Your task to perform on an android device: toggle notification dots Image 0: 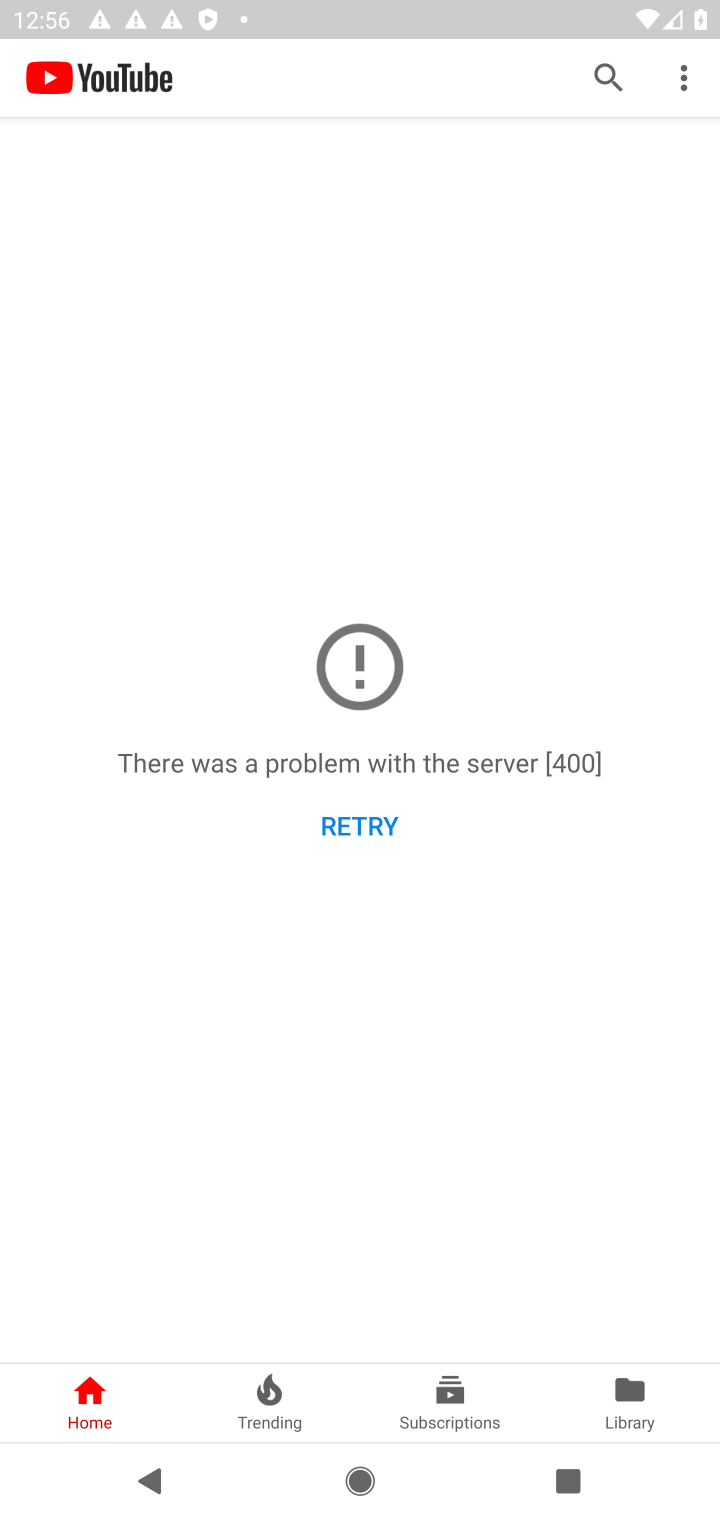
Step 0: press home button
Your task to perform on an android device: toggle notification dots Image 1: 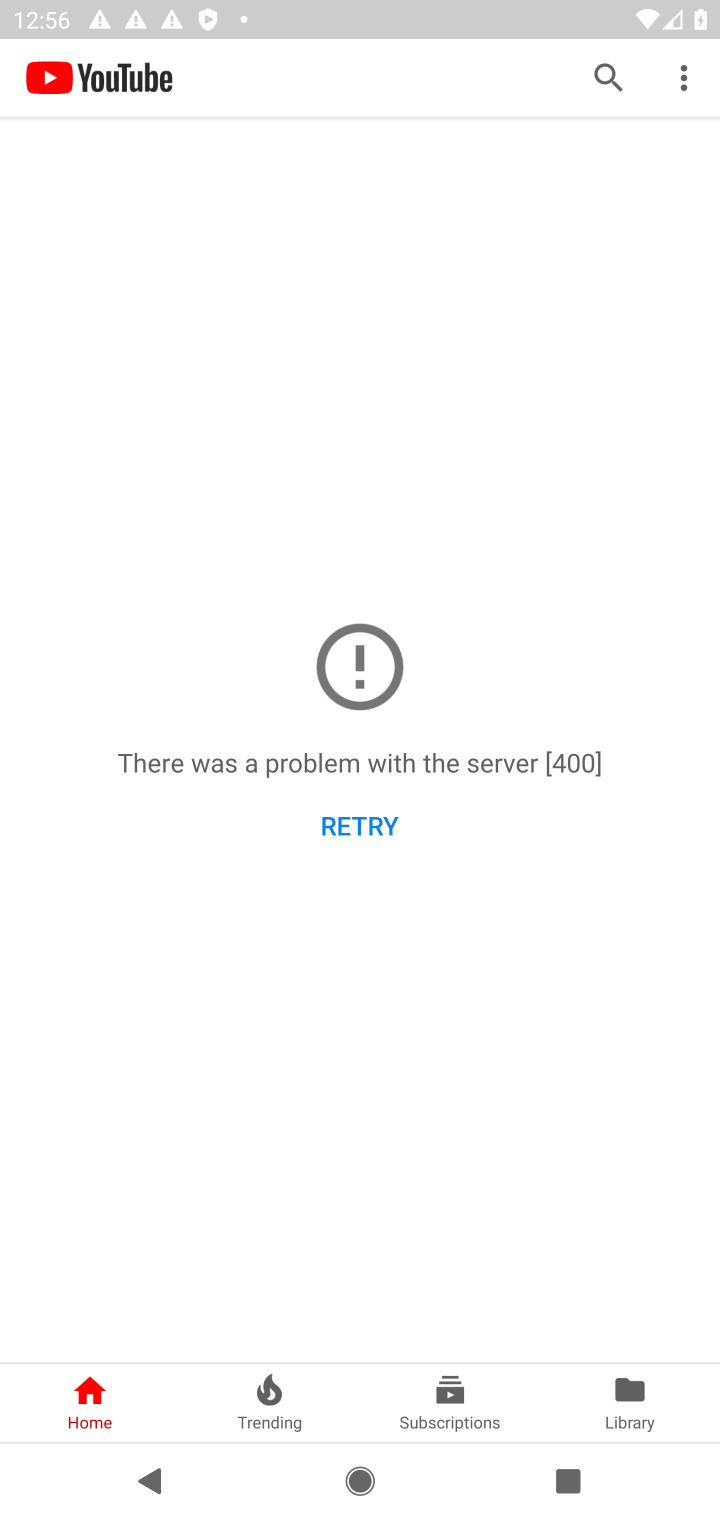
Step 1: press home button
Your task to perform on an android device: toggle notification dots Image 2: 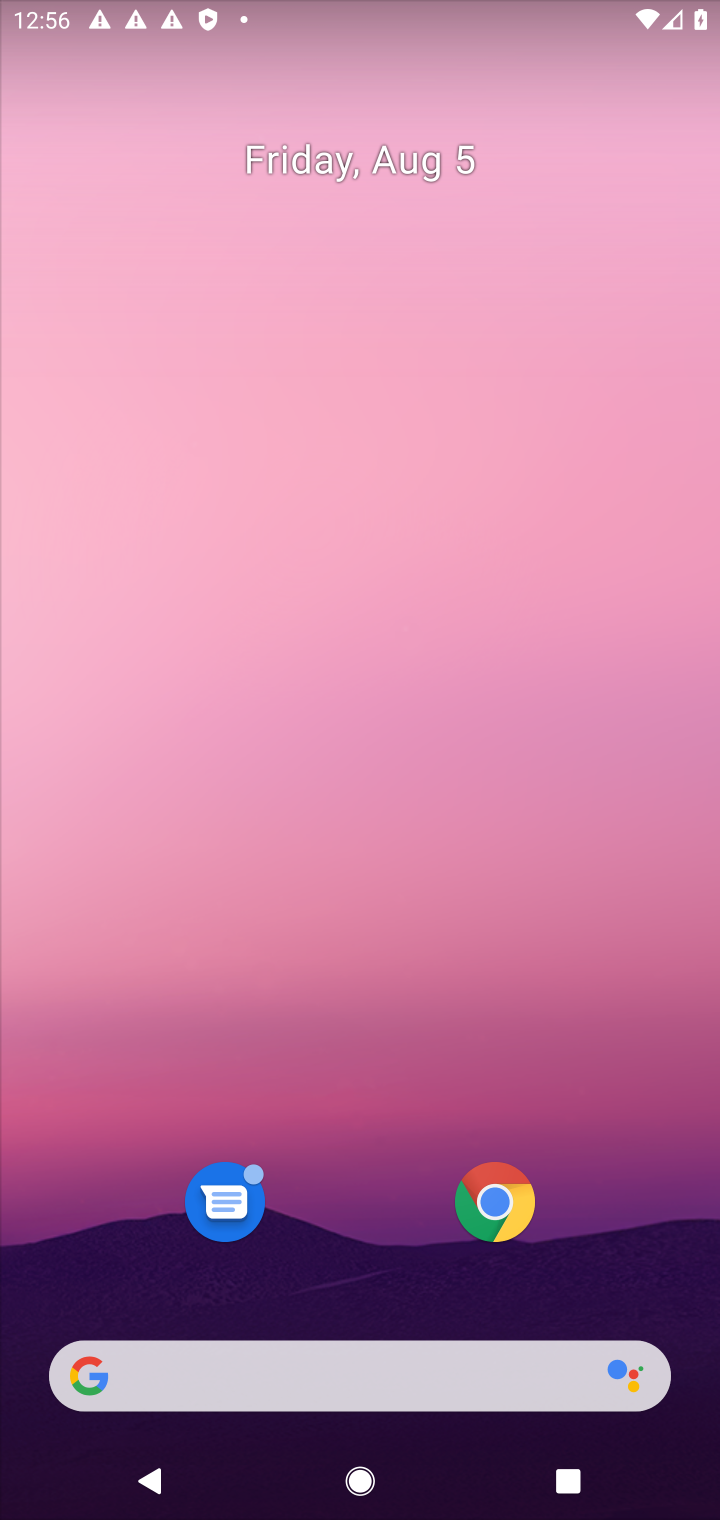
Step 2: drag from (540, 725) to (494, 229)
Your task to perform on an android device: toggle notification dots Image 3: 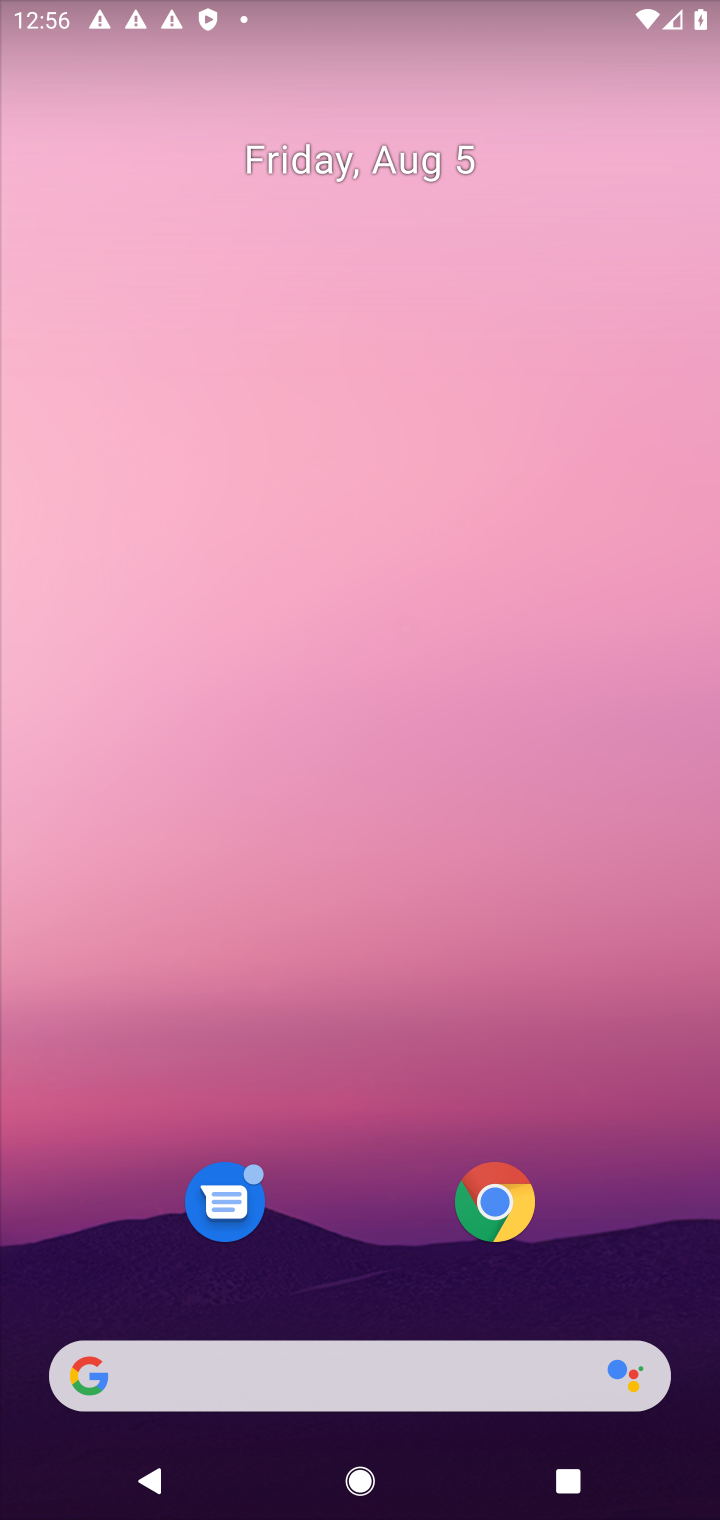
Step 3: drag from (346, 1015) to (433, 233)
Your task to perform on an android device: toggle notification dots Image 4: 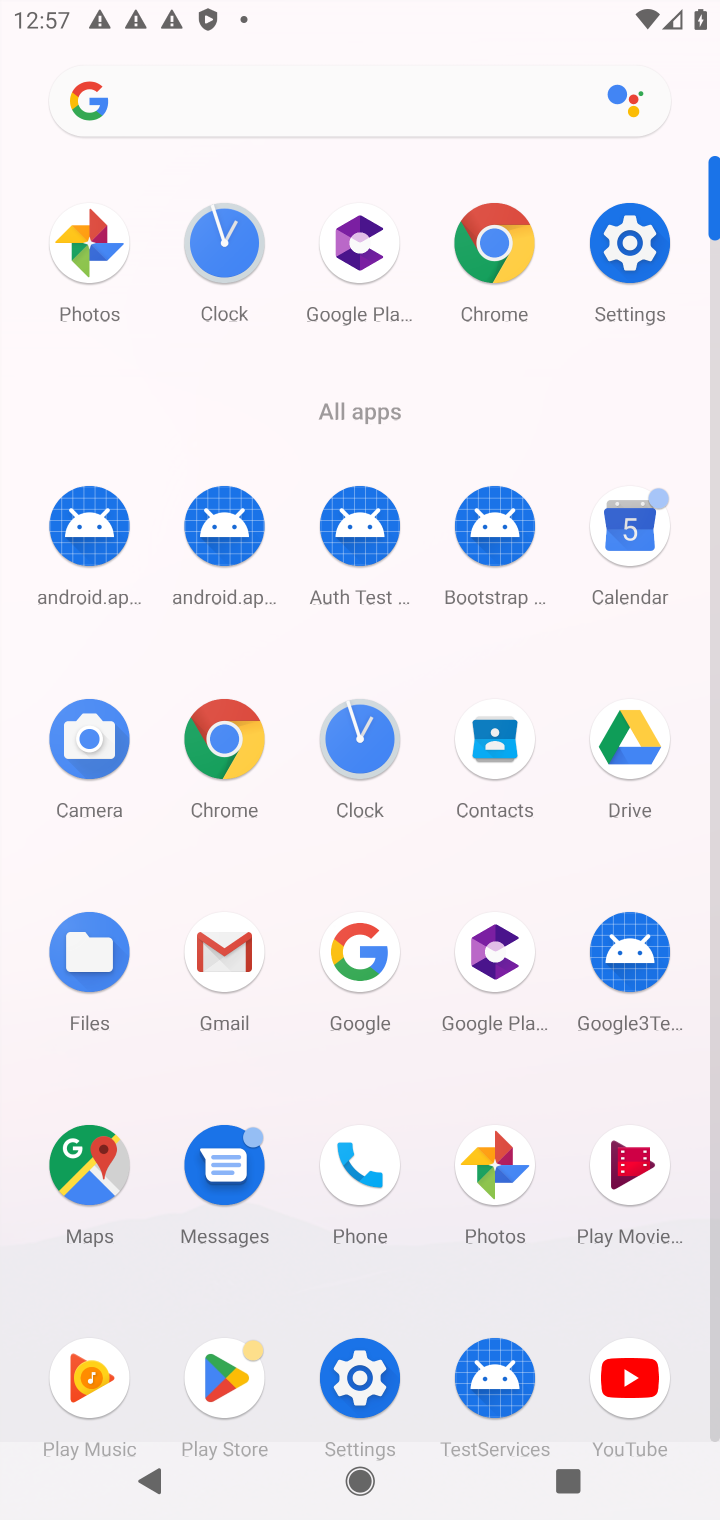
Step 4: click (366, 1369)
Your task to perform on an android device: toggle notification dots Image 5: 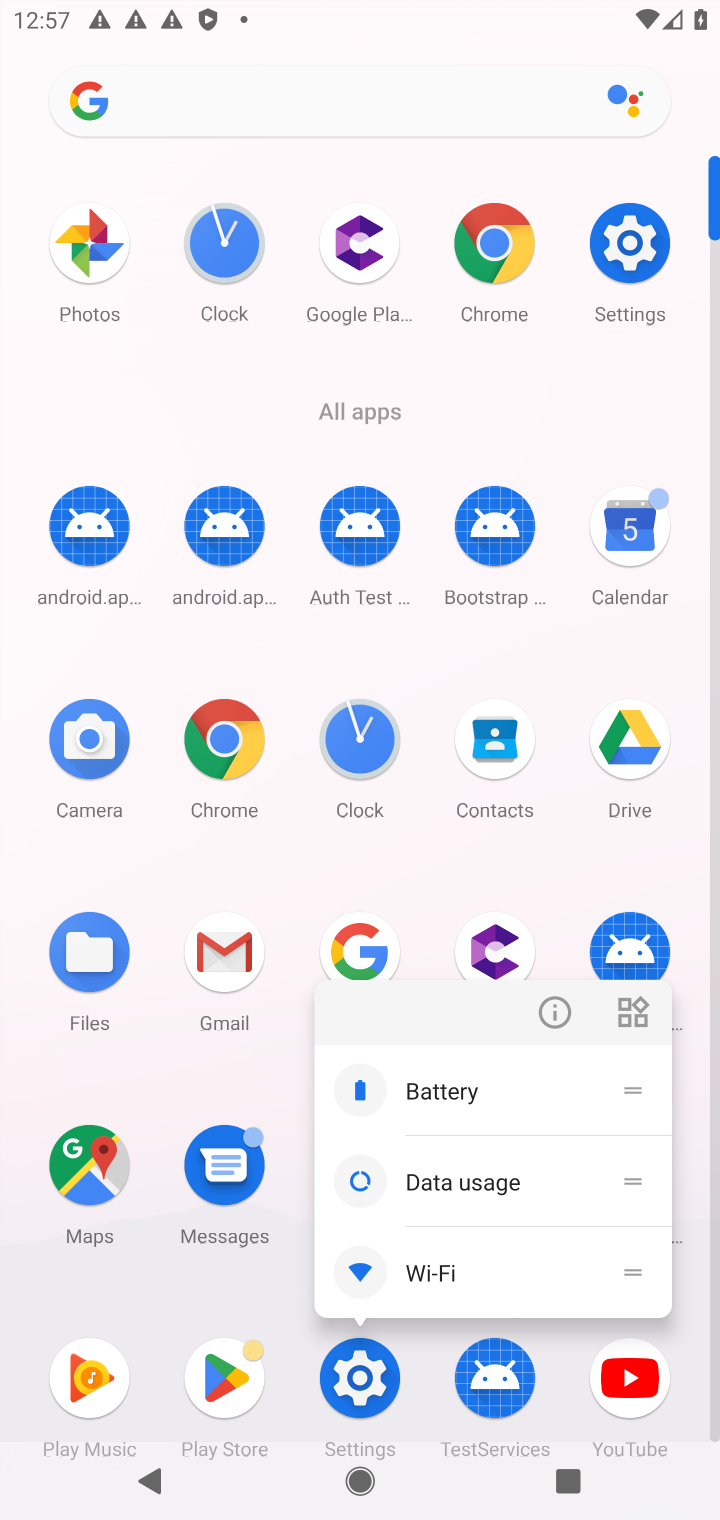
Step 5: click (366, 1368)
Your task to perform on an android device: toggle notification dots Image 6: 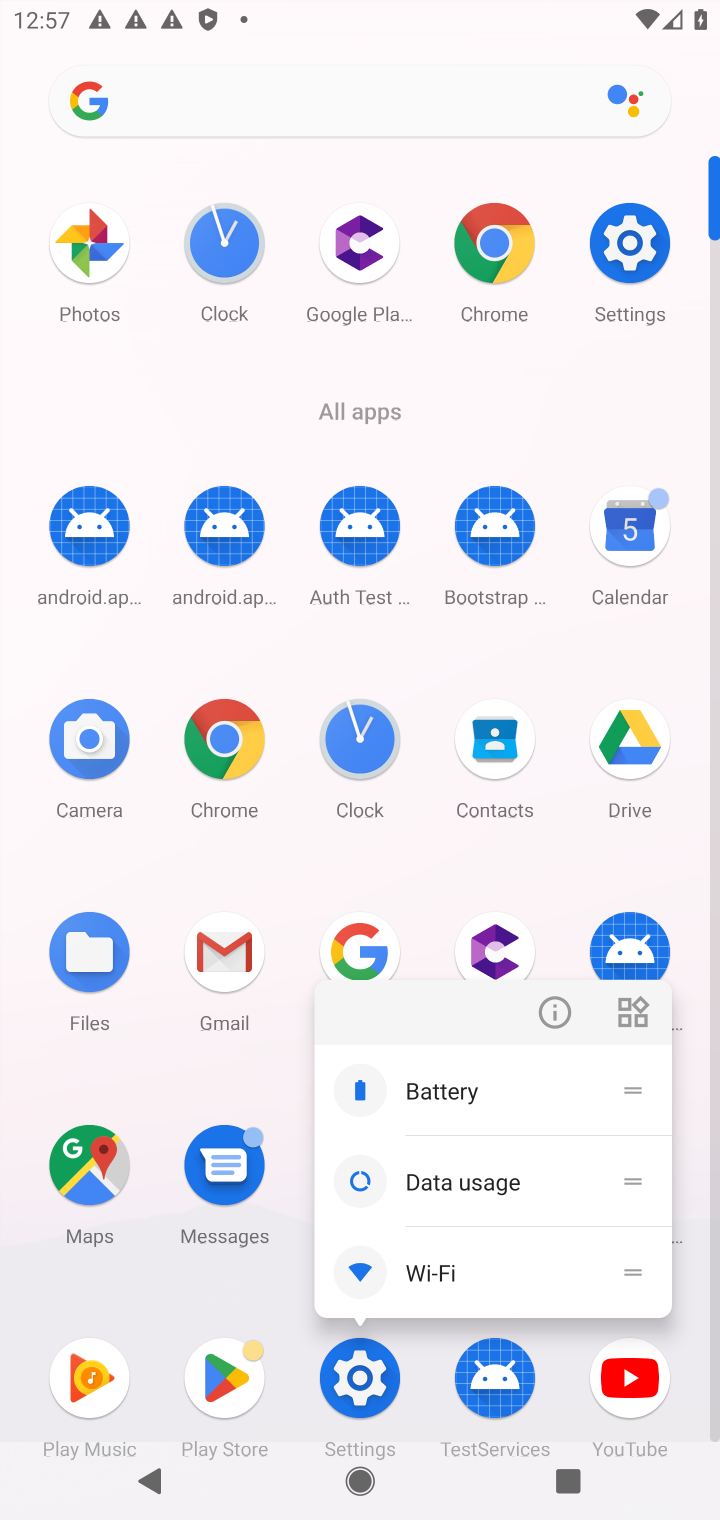
Step 6: click (351, 1373)
Your task to perform on an android device: toggle notification dots Image 7: 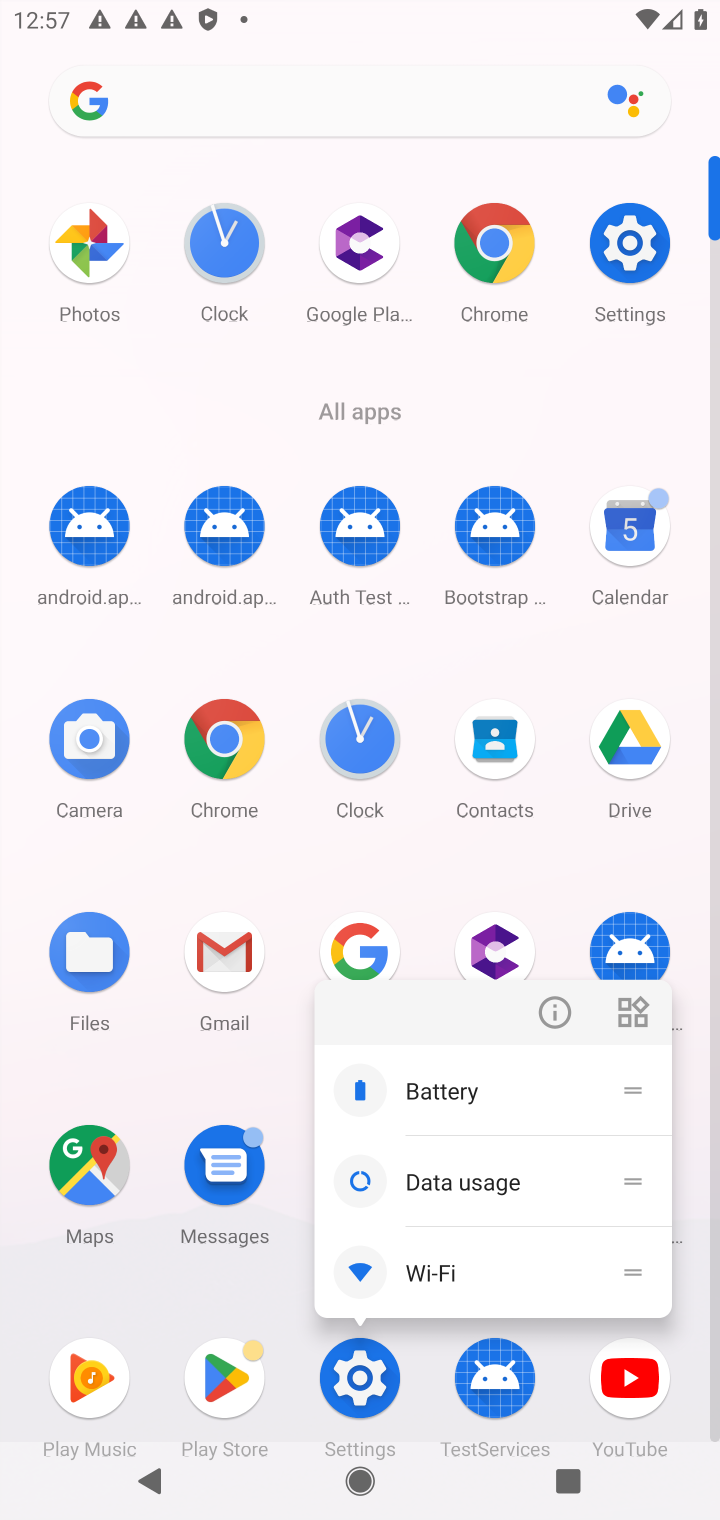
Step 7: click (272, 1292)
Your task to perform on an android device: toggle notification dots Image 8: 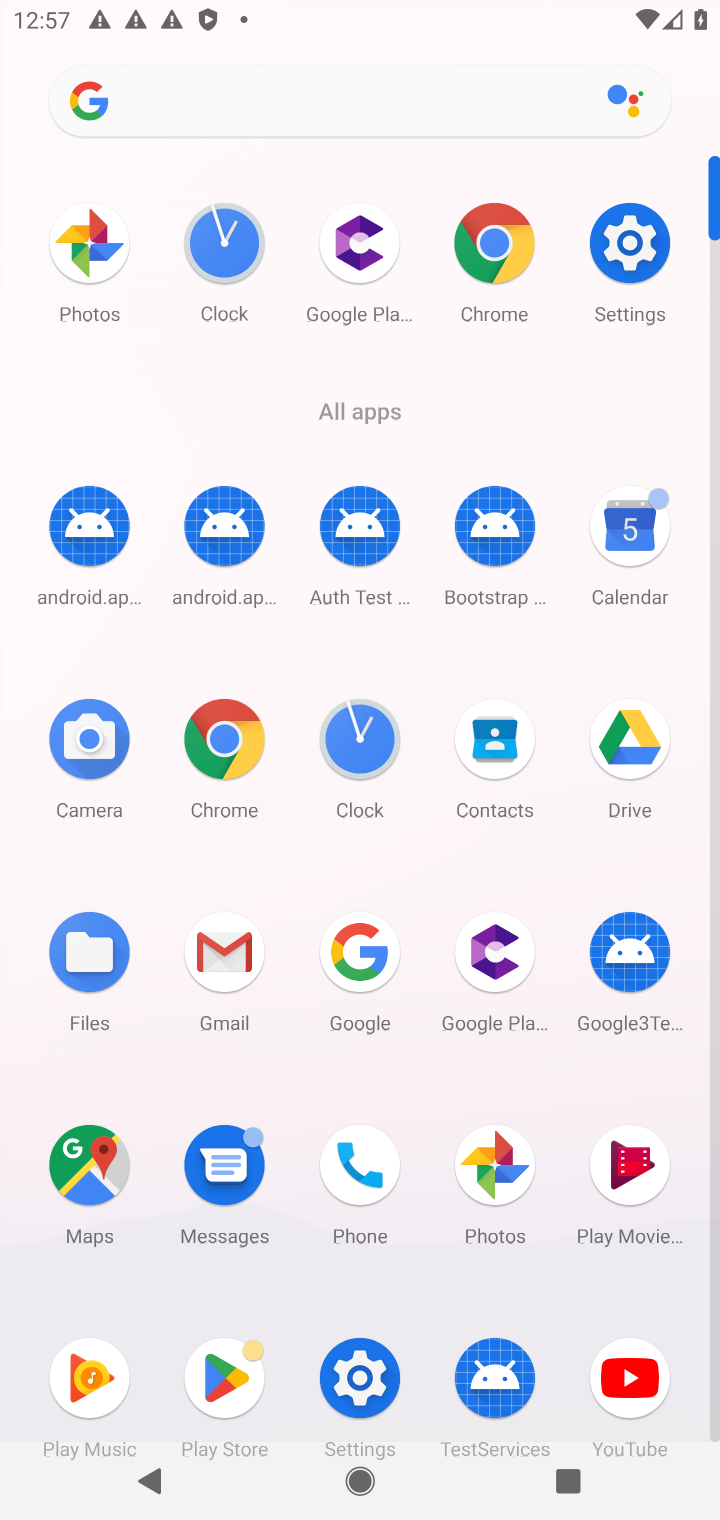
Step 8: drag from (427, 1288) to (431, 646)
Your task to perform on an android device: toggle notification dots Image 9: 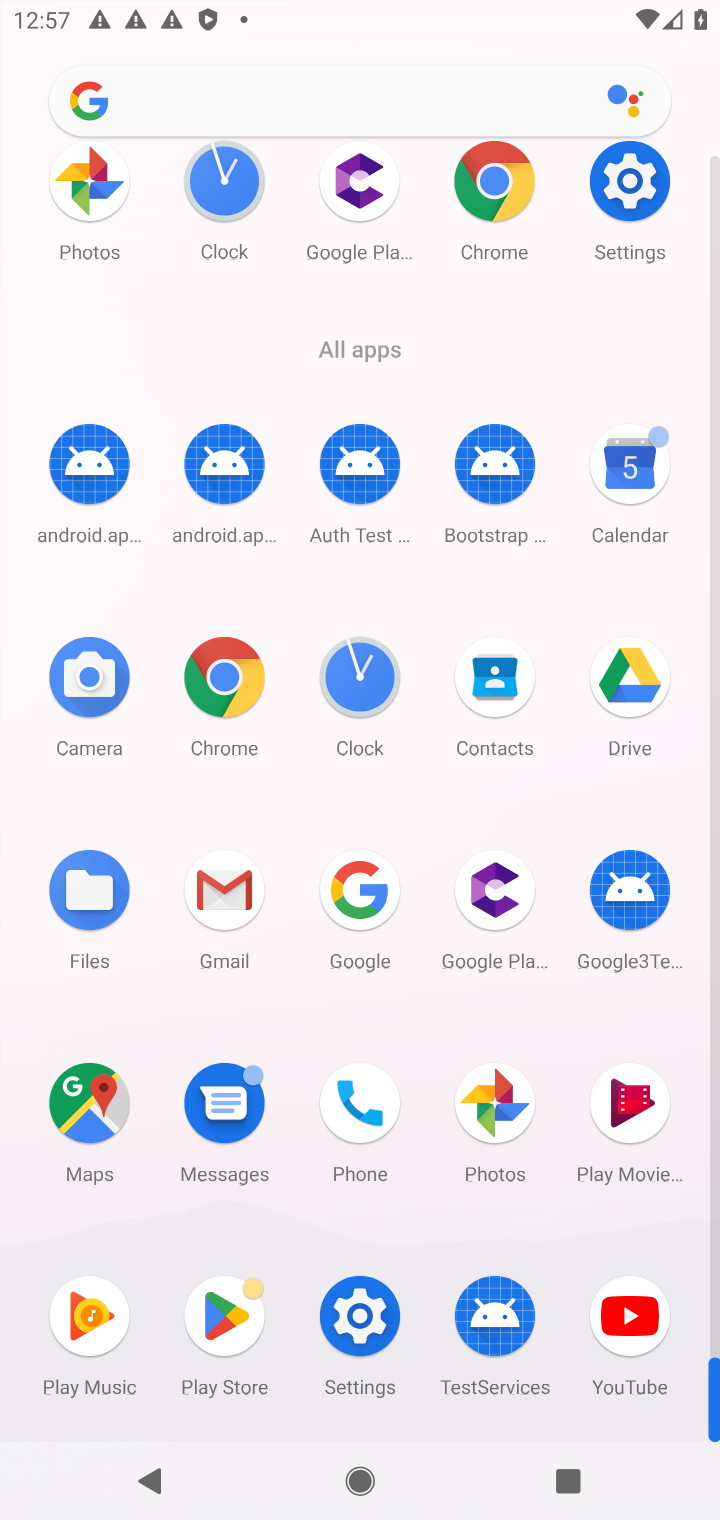
Step 9: click (360, 1310)
Your task to perform on an android device: toggle notification dots Image 10: 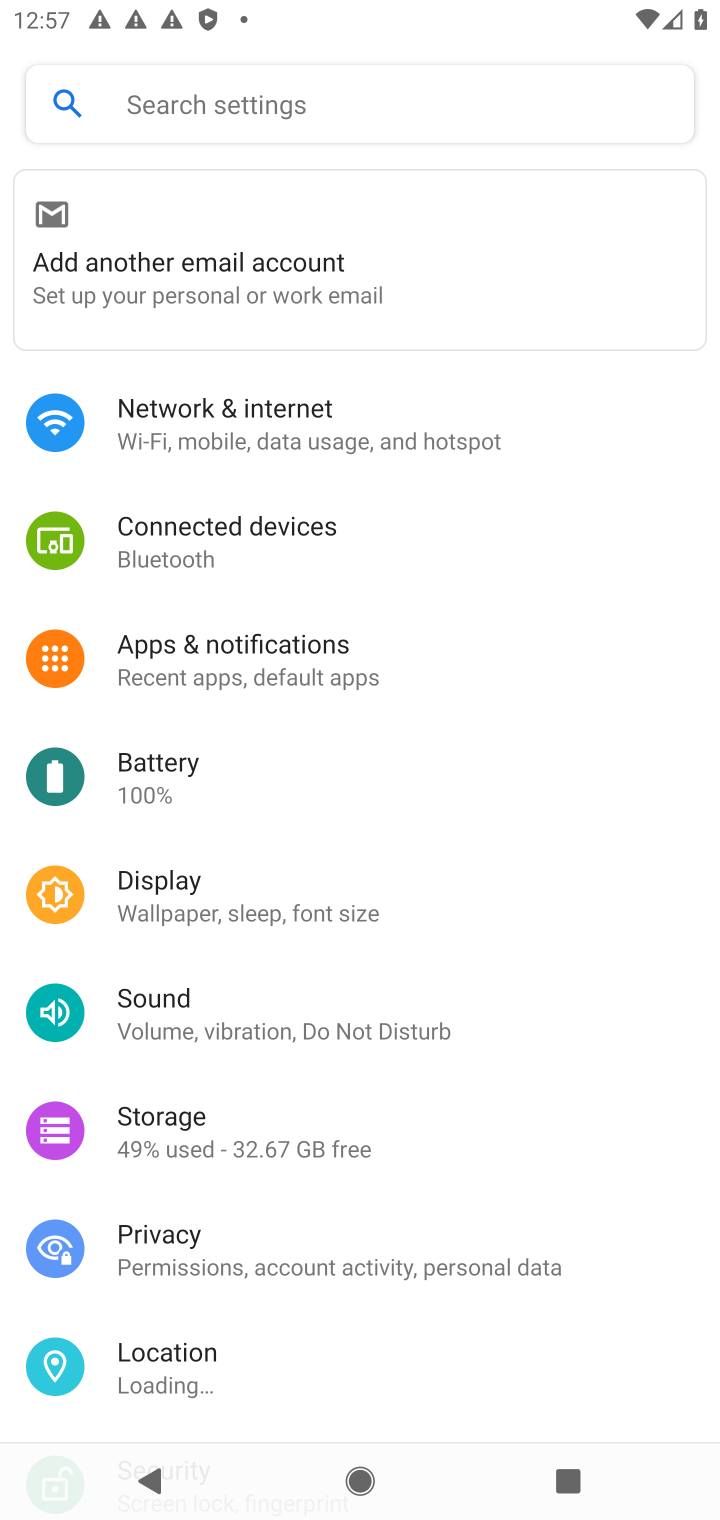
Step 10: click (233, 636)
Your task to perform on an android device: toggle notification dots Image 11: 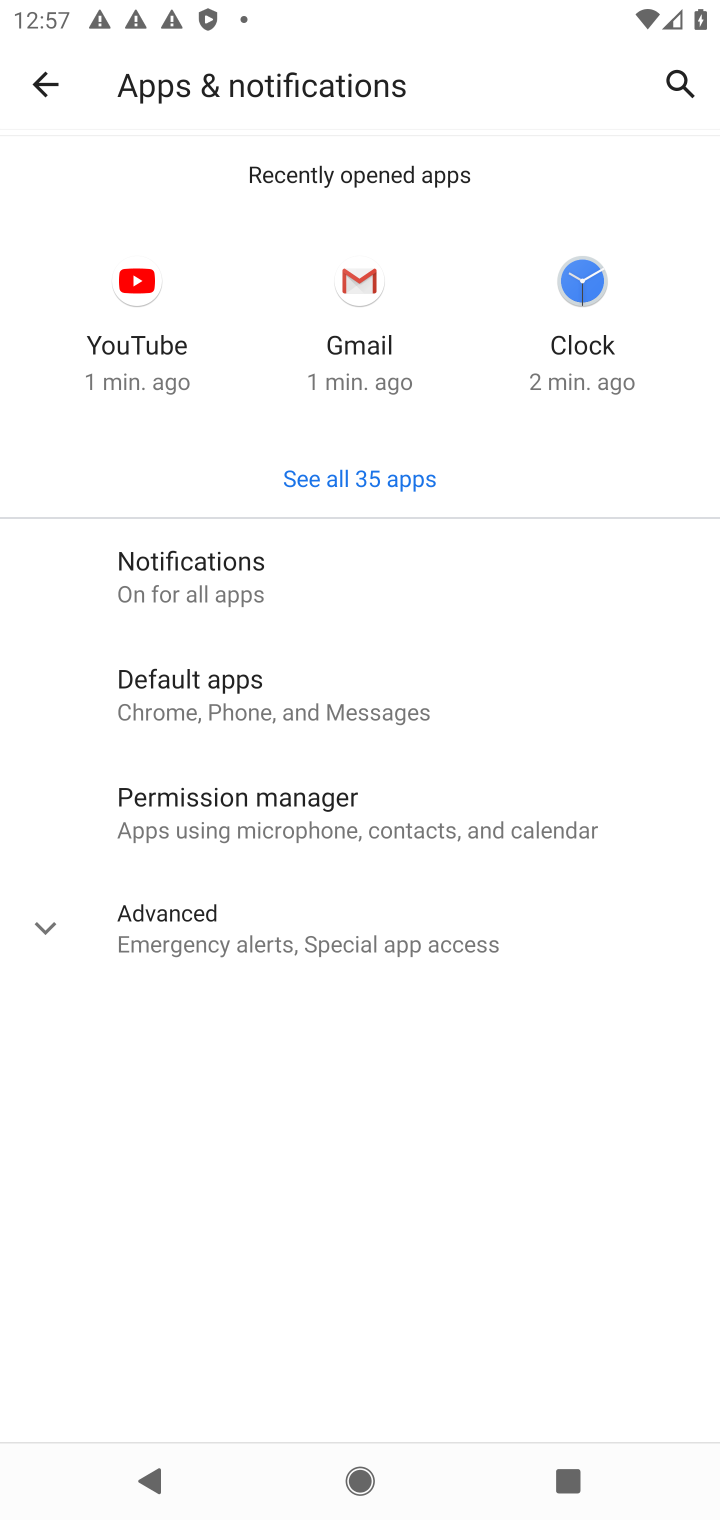
Step 11: click (212, 572)
Your task to perform on an android device: toggle notification dots Image 12: 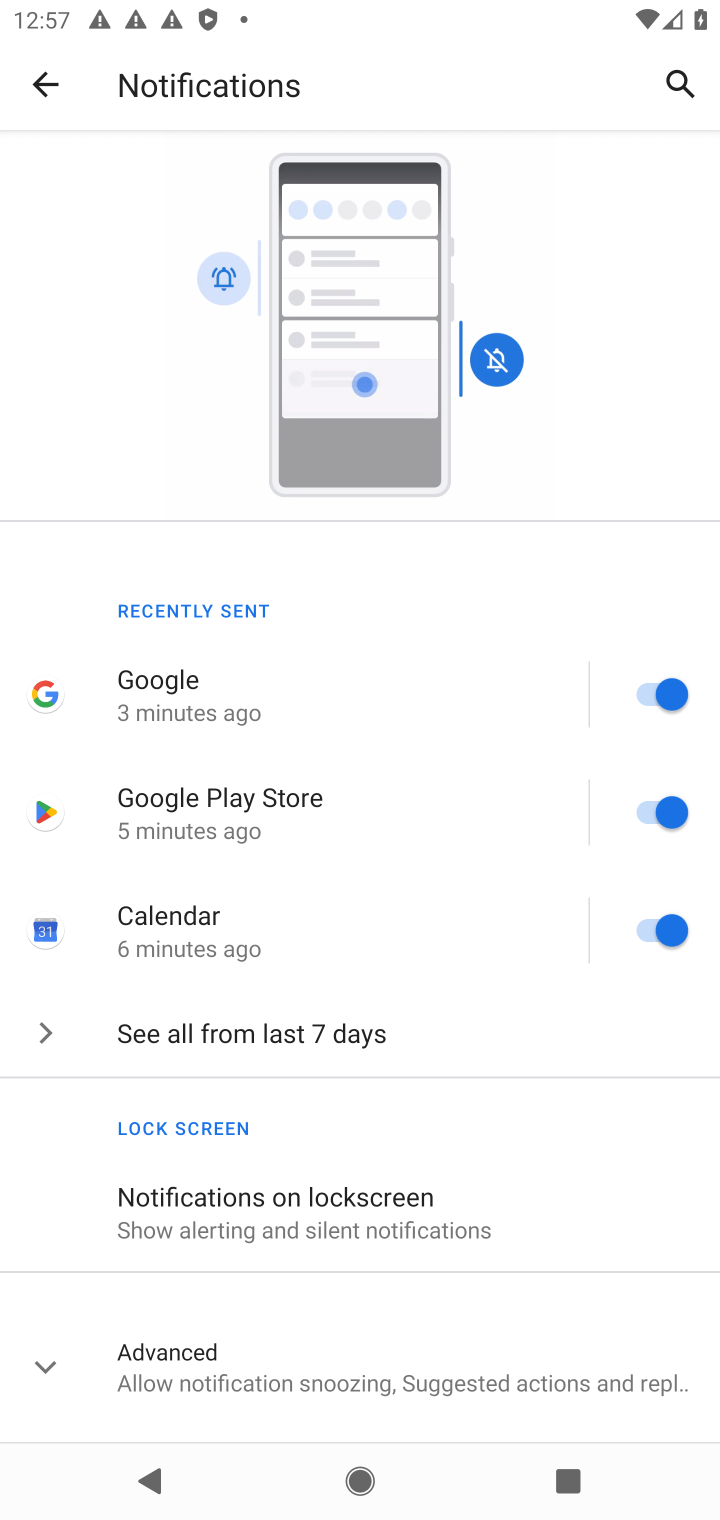
Step 12: drag from (463, 1255) to (477, 443)
Your task to perform on an android device: toggle notification dots Image 13: 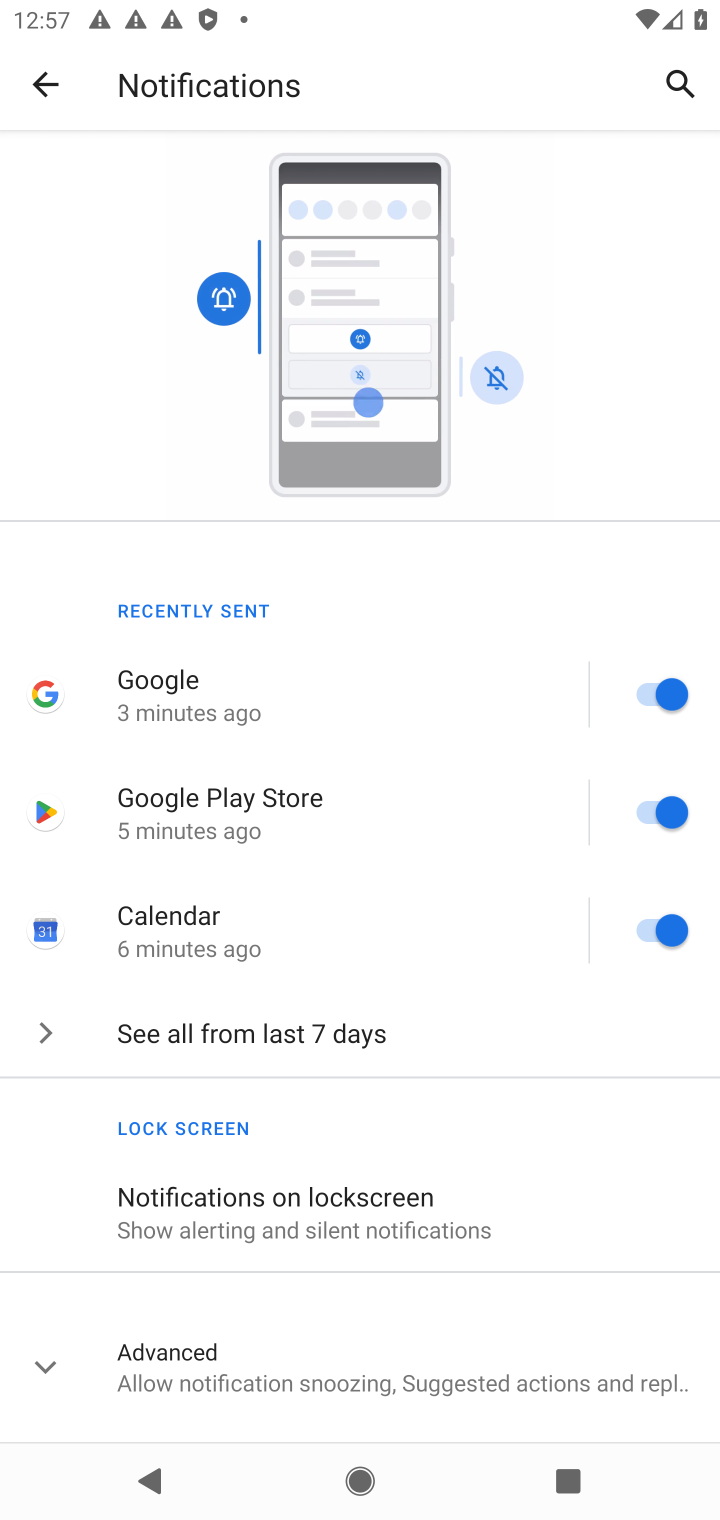
Step 13: click (321, 1372)
Your task to perform on an android device: toggle notification dots Image 14: 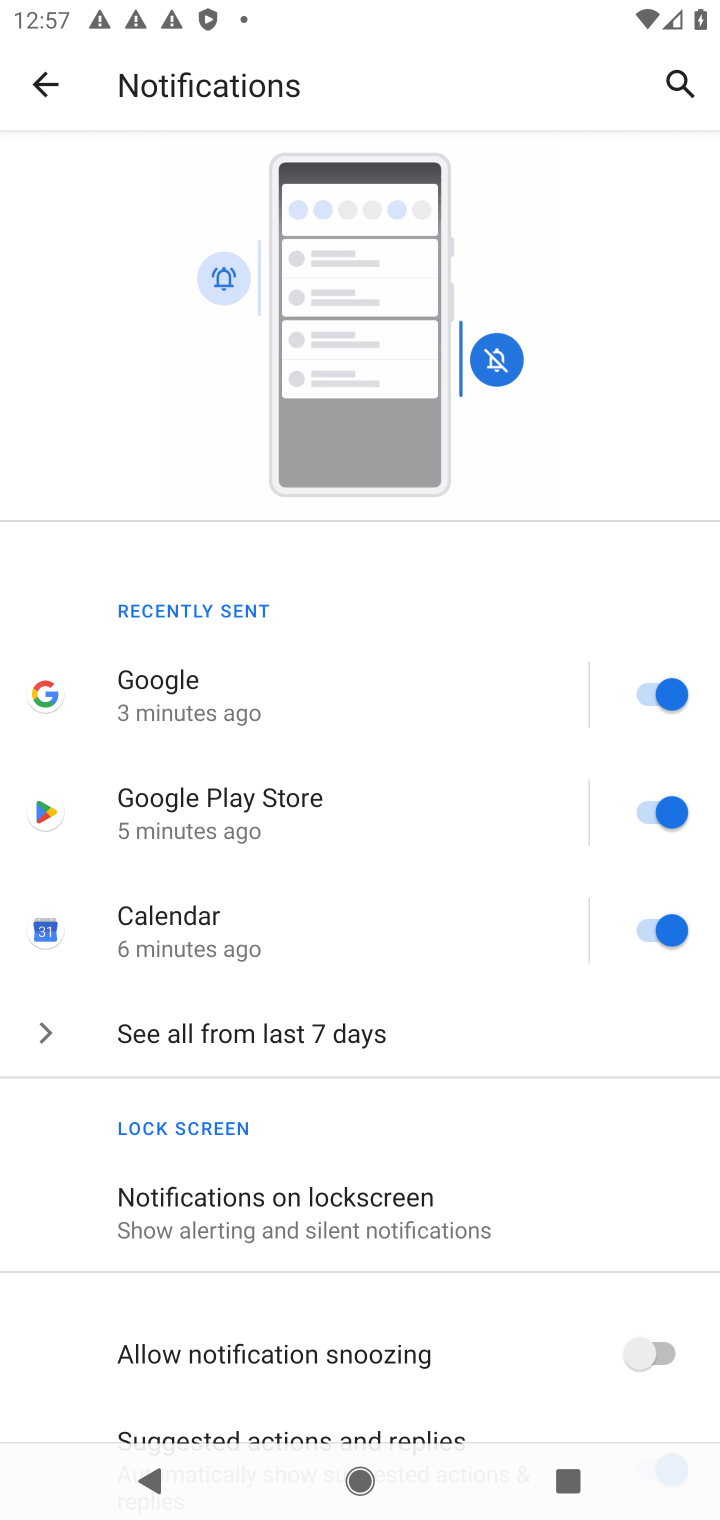
Step 14: drag from (637, 1115) to (623, 370)
Your task to perform on an android device: toggle notification dots Image 15: 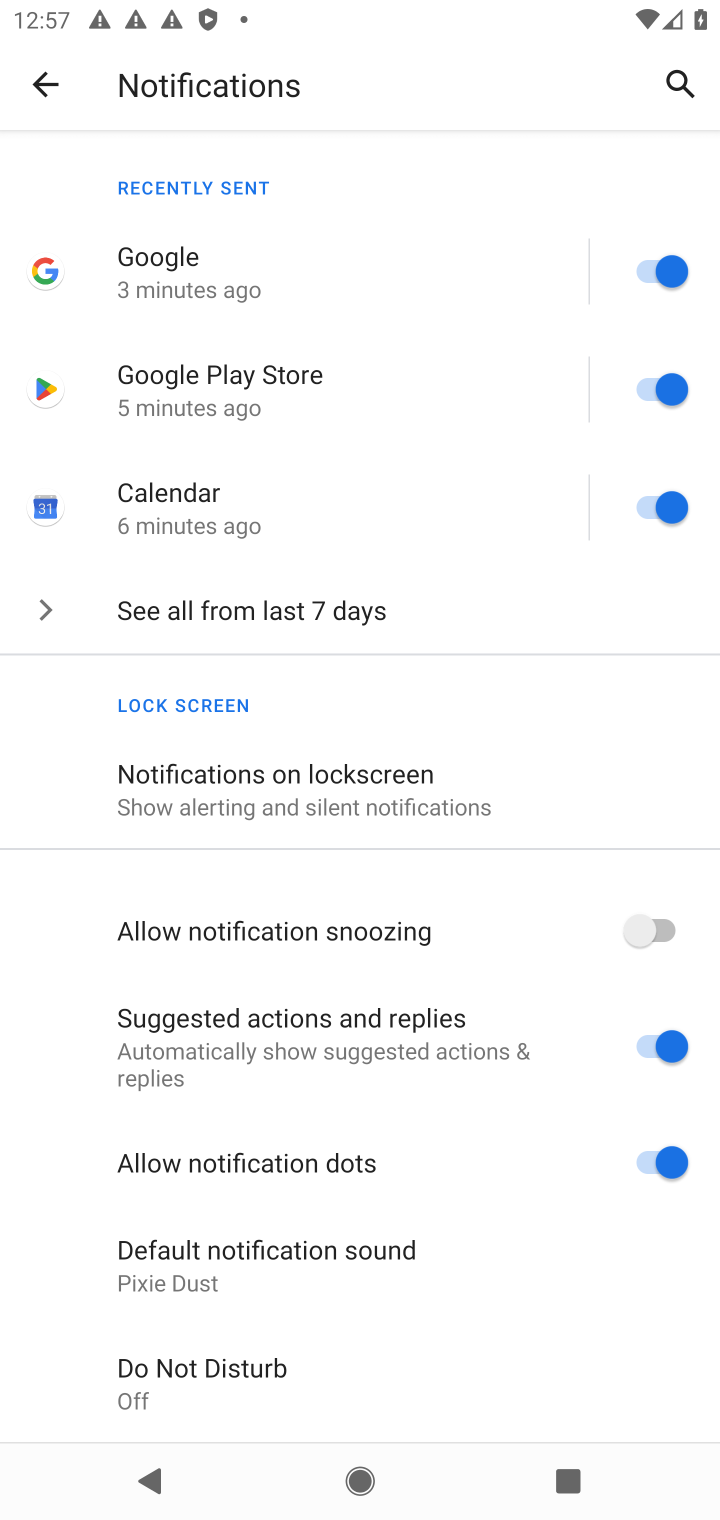
Step 15: click (670, 1156)
Your task to perform on an android device: toggle notification dots Image 16: 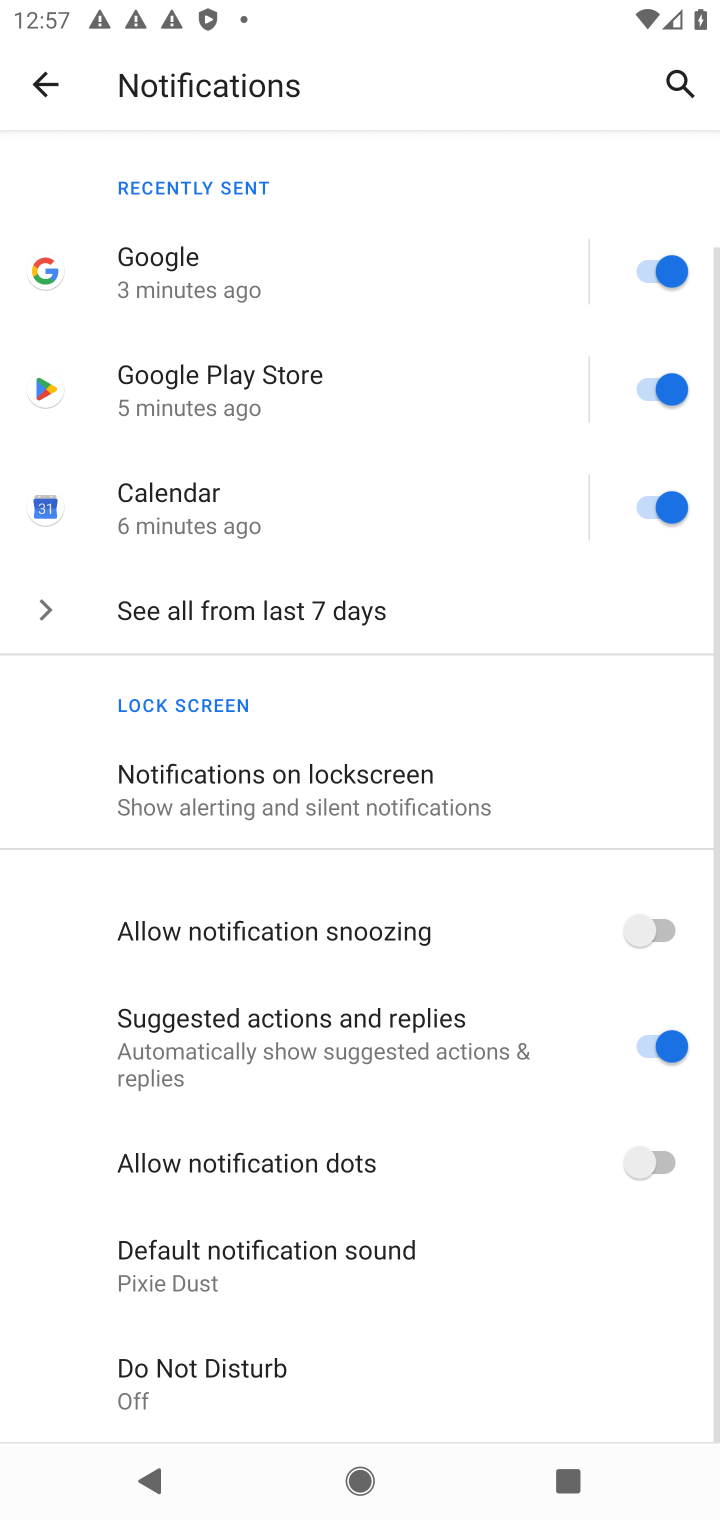
Step 16: task complete